Your task to perform on an android device: Open network settings Image 0: 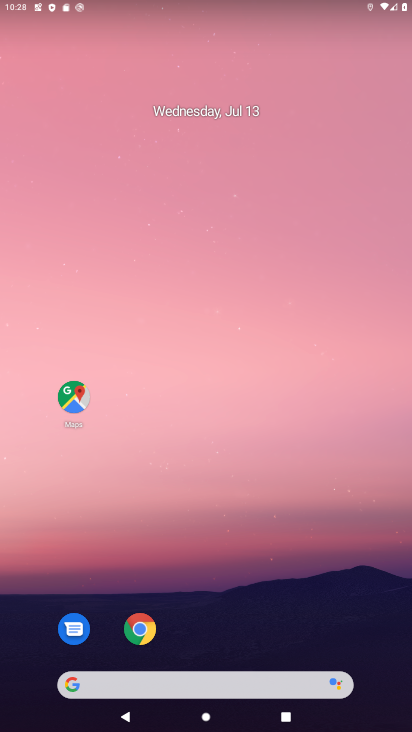
Step 0: press home button
Your task to perform on an android device: Open network settings Image 1: 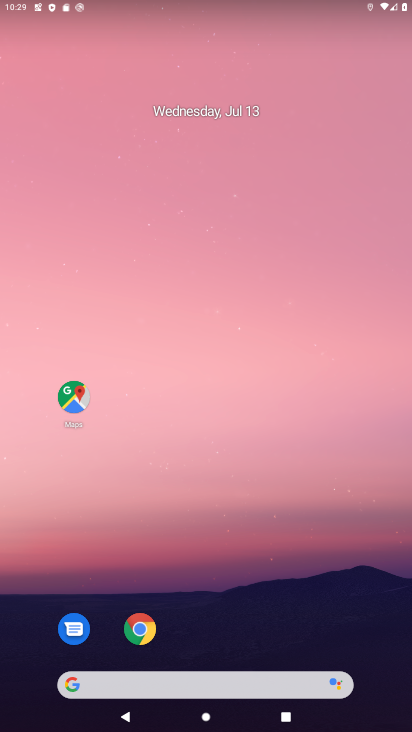
Step 1: drag from (203, 649) to (257, 62)
Your task to perform on an android device: Open network settings Image 2: 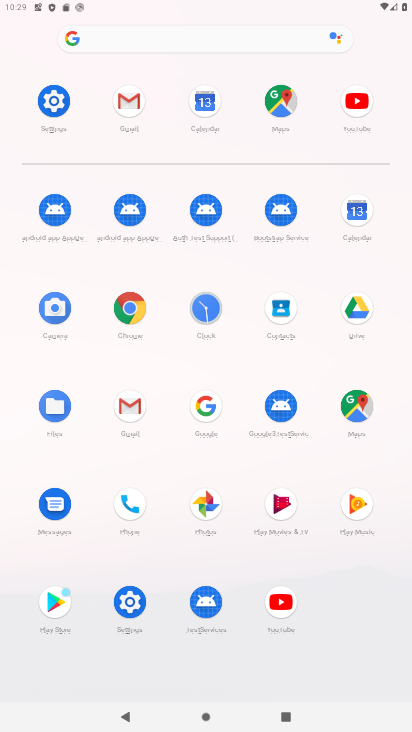
Step 2: click (53, 96)
Your task to perform on an android device: Open network settings Image 3: 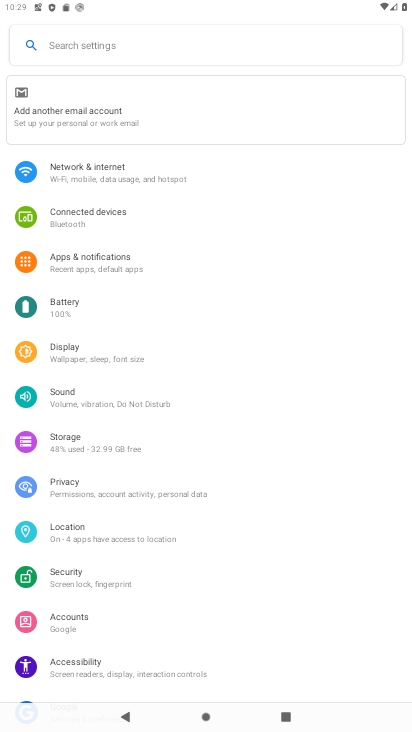
Step 3: click (145, 168)
Your task to perform on an android device: Open network settings Image 4: 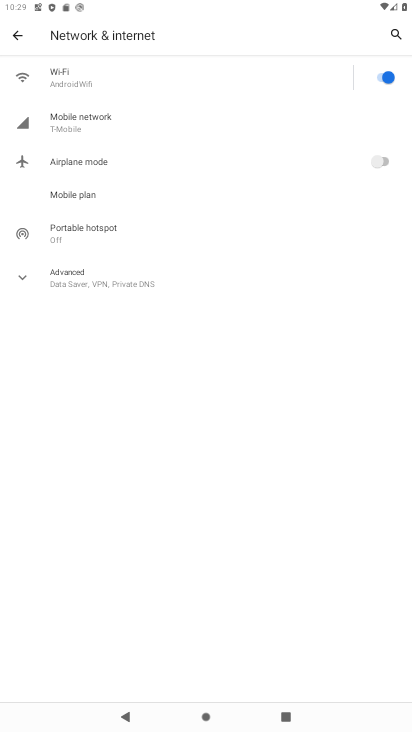
Step 4: click (20, 274)
Your task to perform on an android device: Open network settings Image 5: 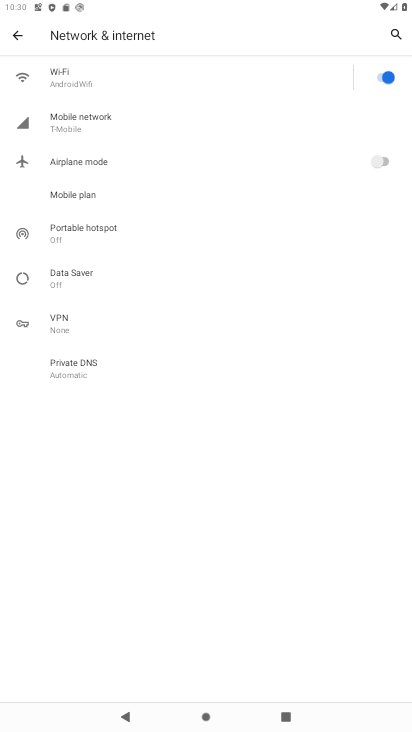
Step 5: task complete